Your task to perform on an android device: set the stopwatch Image 0: 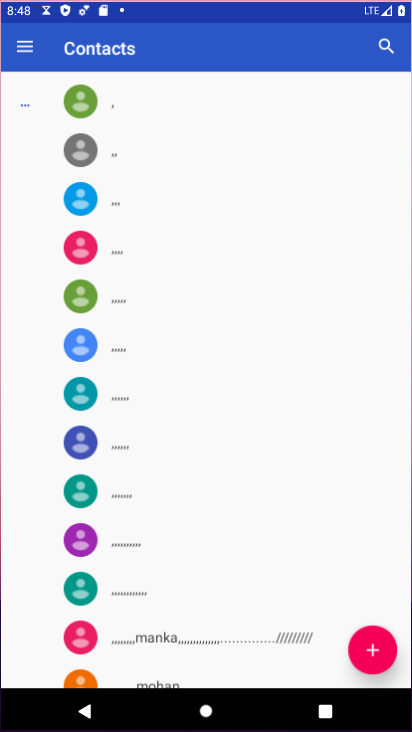
Step 0: press back button
Your task to perform on an android device: set the stopwatch Image 1: 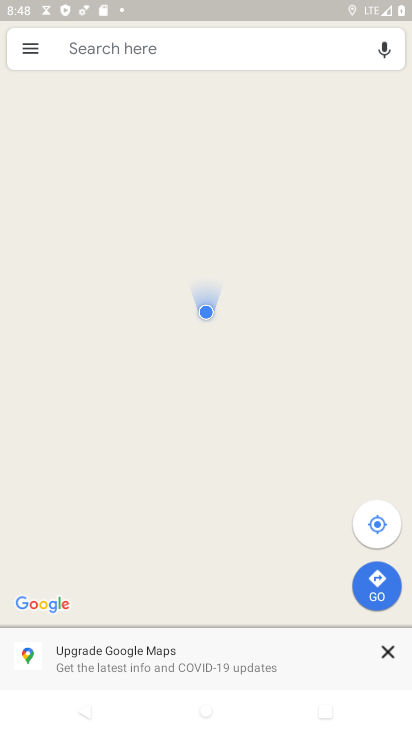
Step 1: press back button
Your task to perform on an android device: set the stopwatch Image 2: 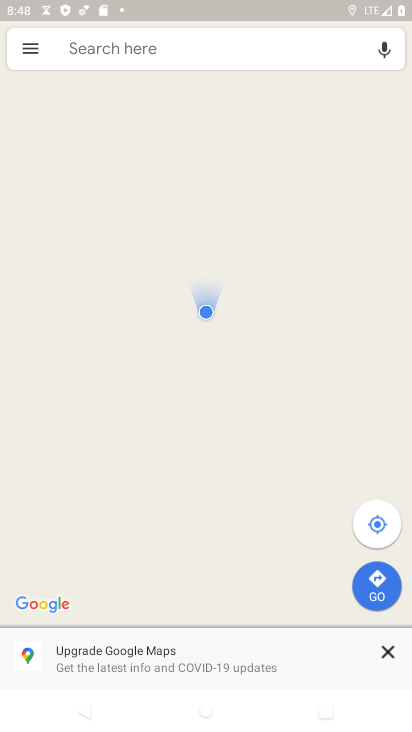
Step 2: press back button
Your task to perform on an android device: set the stopwatch Image 3: 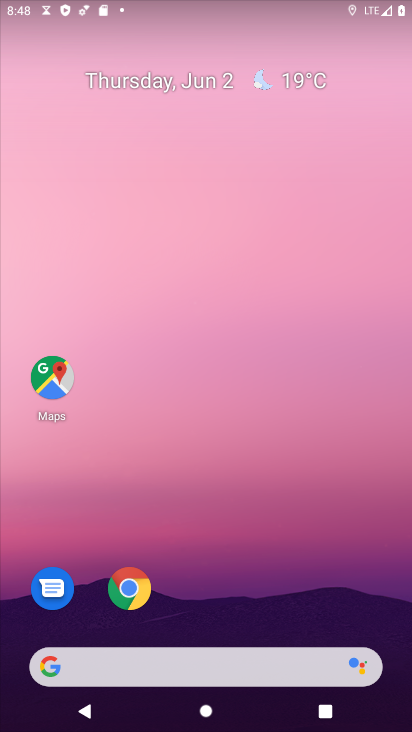
Step 3: drag from (249, 559) to (251, 69)
Your task to perform on an android device: set the stopwatch Image 4: 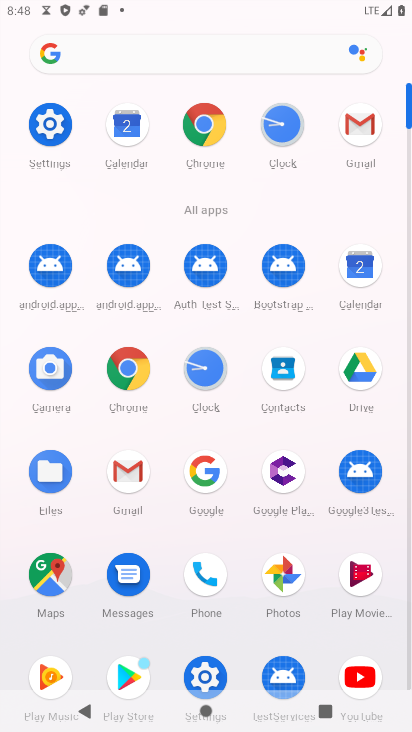
Step 4: click (284, 134)
Your task to perform on an android device: set the stopwatch Image 5: 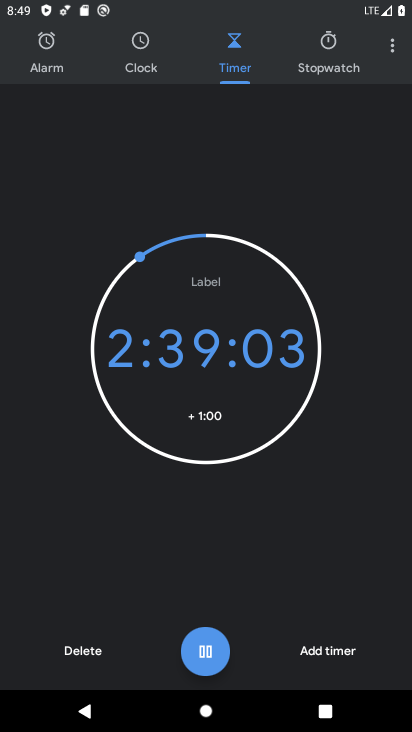
Step 5: click (333, 51)
Your task to perform on an android device: set the stopwatch Image 6: 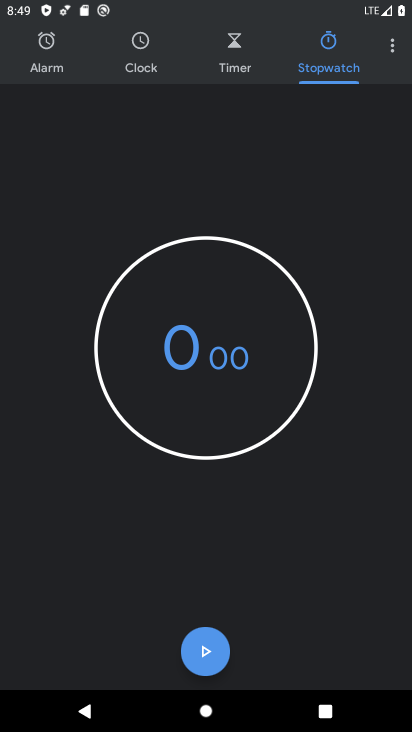
Step 6: click (225, 374)
Your task to perform on an android device: set the stopwatch Image 7: 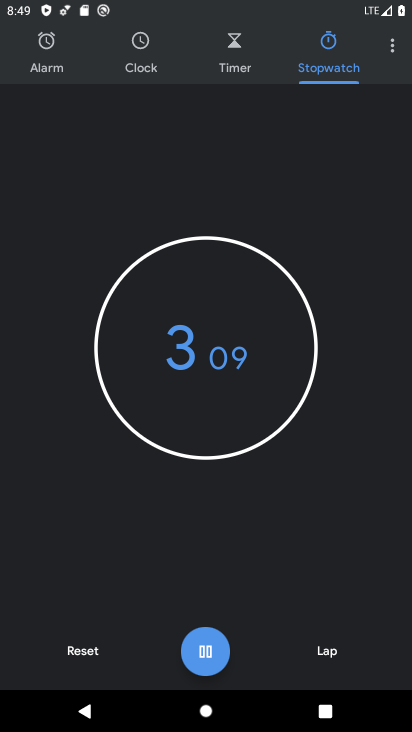
Step 7: click (225, 374)
Your task to perform on an android device: set the stopwatch Image 8: 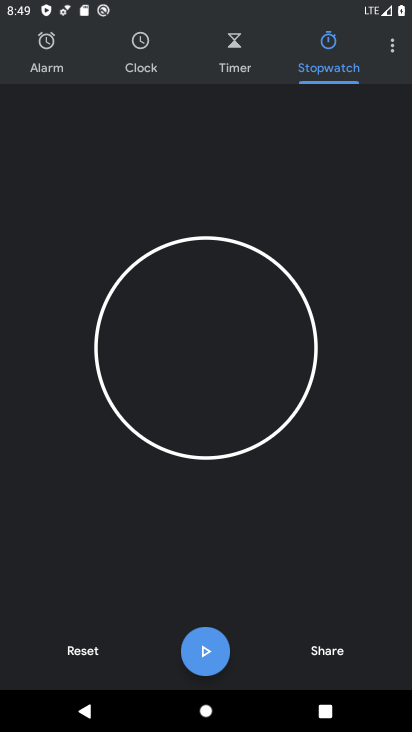
Step 8: task complete